Your task to perform on an android device: What is the recent news? Image 0: 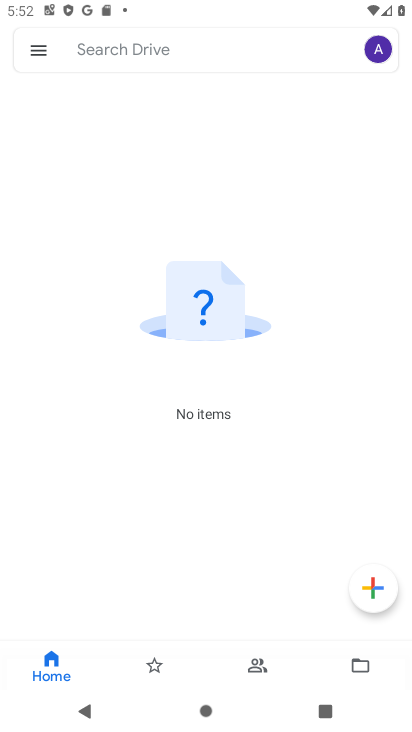
Step 0: press home button
Your task to perform on an android device: What is the recent news? Image 1: 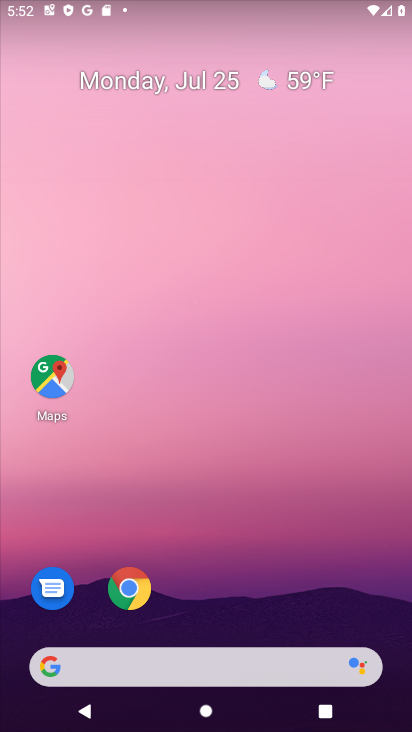
Step 1: click (232, 666)
Your task to perform on an android device: What is the recent news? Image 2: 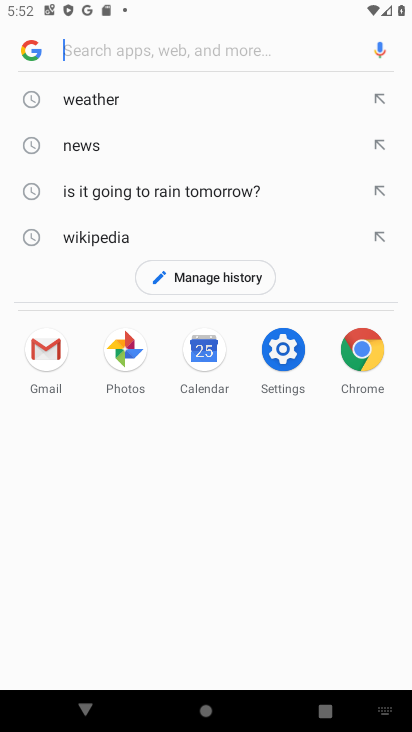
Step 2: type "What is the recent news?"
Your task to perform on an android device: What is the recent news? Image 3: 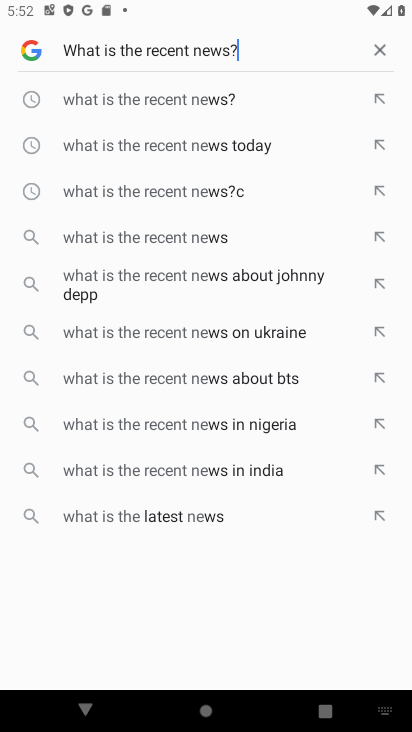
Step 3: press enter
Your task to perform on an android device: What is the recent news? Image 4: 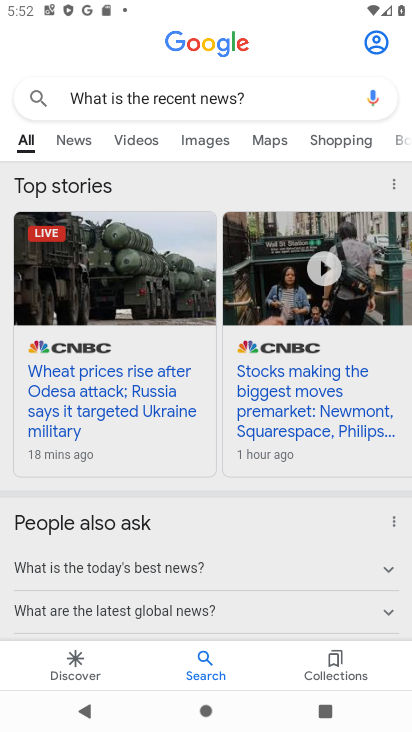
Step 4: task complete